Your task to perform on an android device: turn off wifi Image 0: 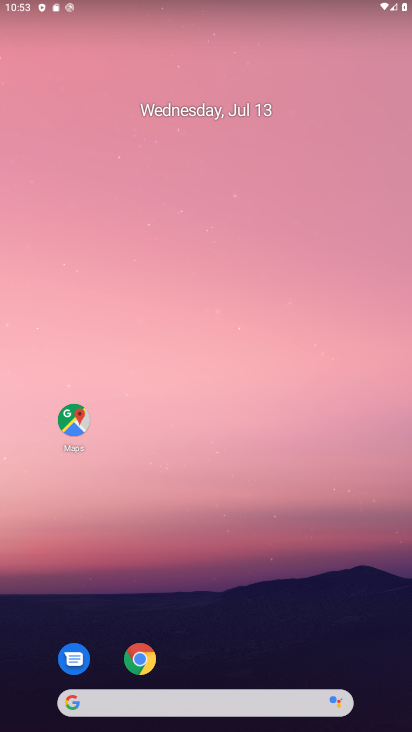
Step 0: drag from (266, 506) to (238, 106)
Your task to perform on an android device: turn off wifi Image 1: 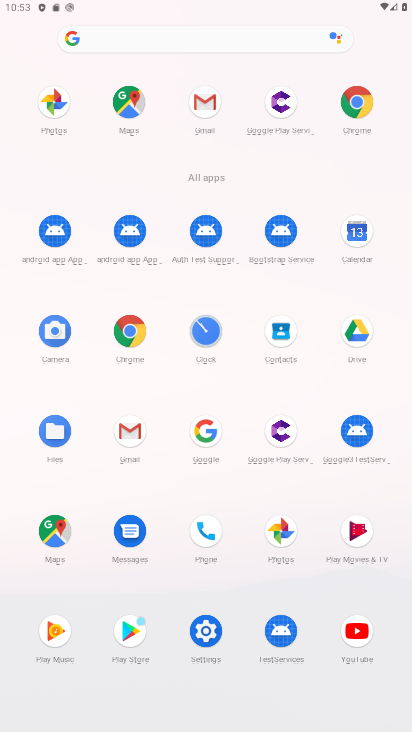
Step 1: click (206, 634)
Your task to perform on an android device: turn off wifi Image 2: 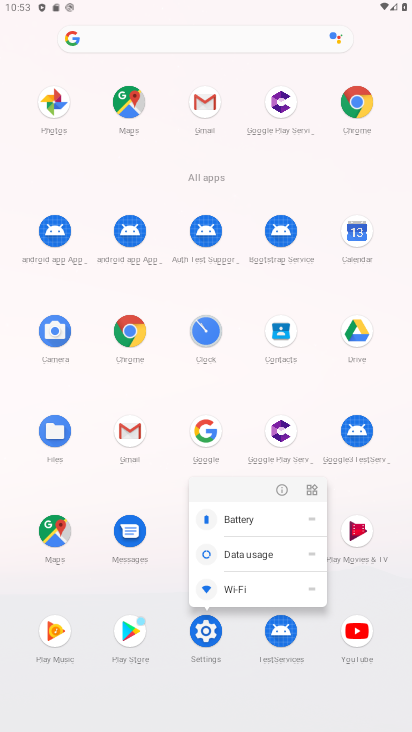
Step 2: click (213, 628)
Your task to perform on an android device: turn off wifi Image 3: 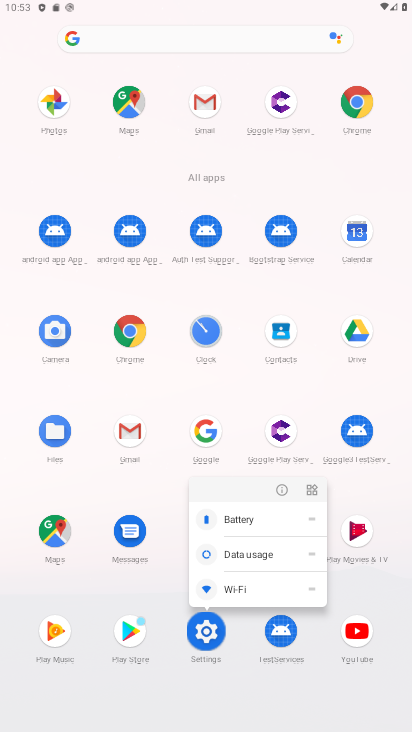
Step 3: click (208, 634)
Your task to perform on an android device: turn off wifi Image 4: 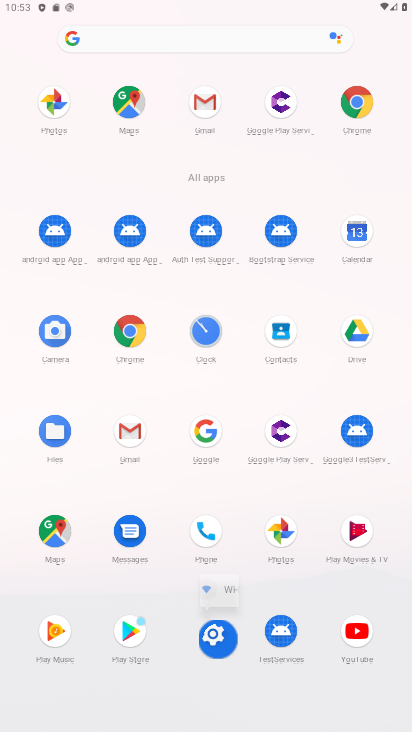
Step 4: click (210, 639)
Your task to perform on an android device: turn off wifi Image 5: 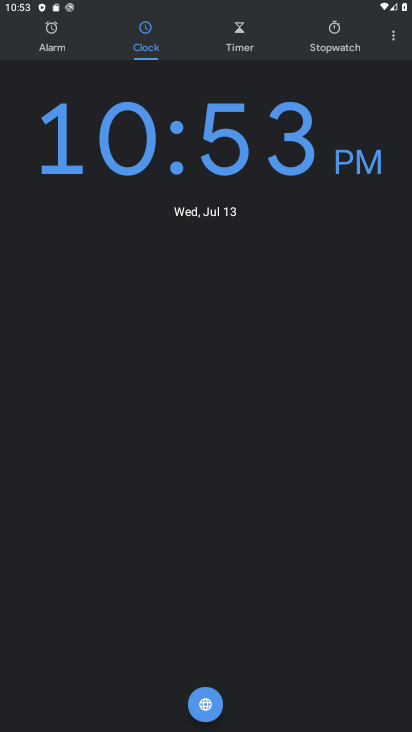
Step 5: click (395, 44)
Your task to perform on an android device: turn off wifi Image 6: 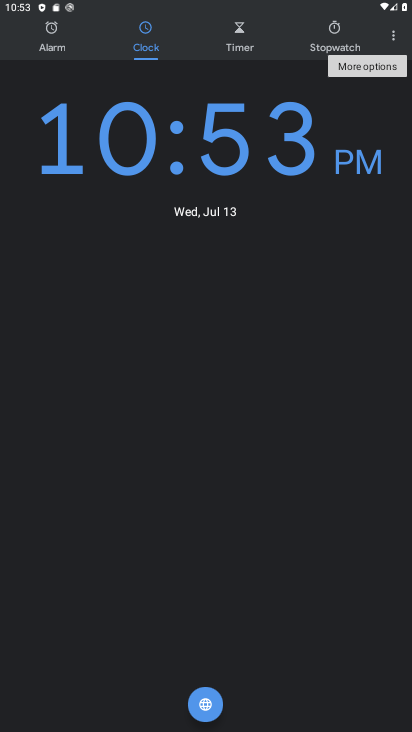
Step 6: click (395, 38)
Your task to perform on an android device: turn off wifi Image 7: 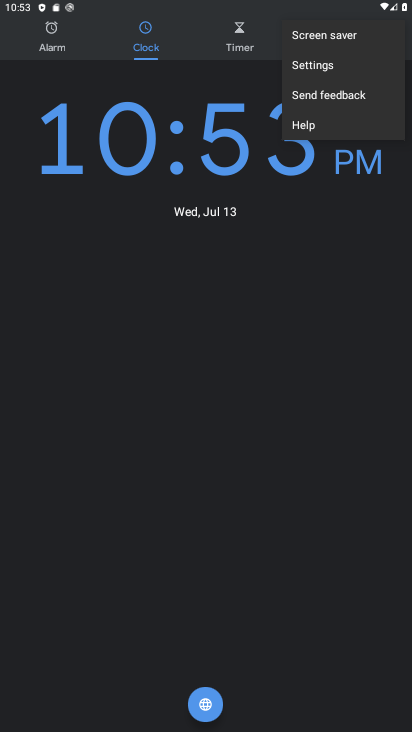
Step 7: click (323, 67)
Your task to perform on an android device: turn off wifi Image 8: 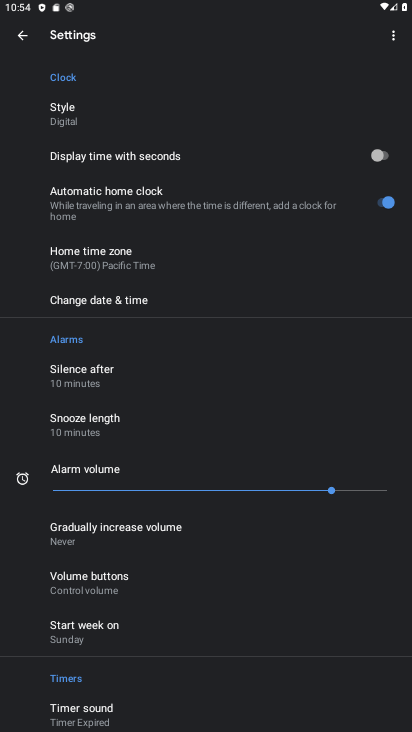
Step 8: drag from (150, 550) to (190, 68)
Your task to perform on an android device: turn off wifi Image 9: 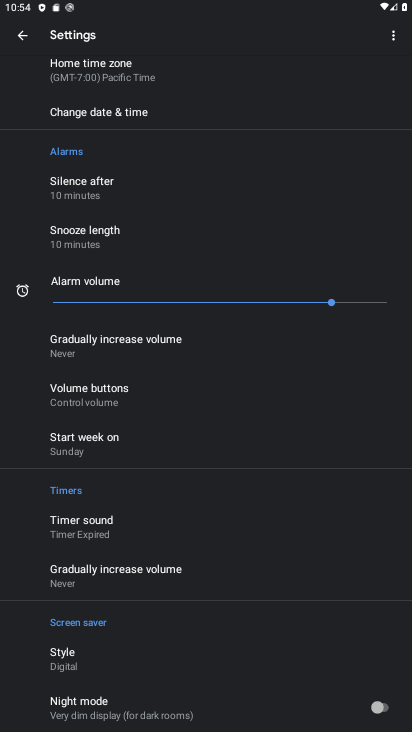
Step 9: drag from (116, 171) to (154, 481)
Your task to perform on an android device: turn off wifi Image 10: 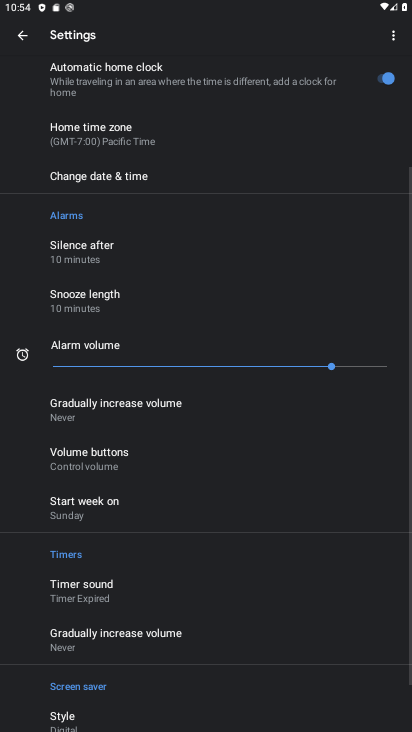
Step 10: drag from (125, 140) to (180, 577)
Your task to perform on an android device: turn off wifi Image 11: 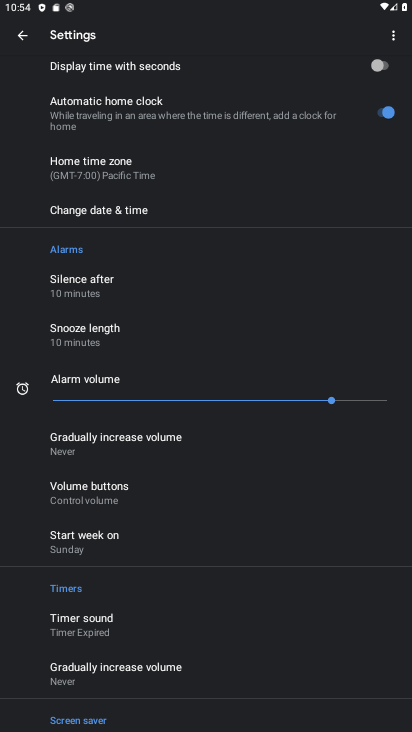
Step 11: click (241, 661)
Your task to perform on an android device: turn off wifi Image 12: 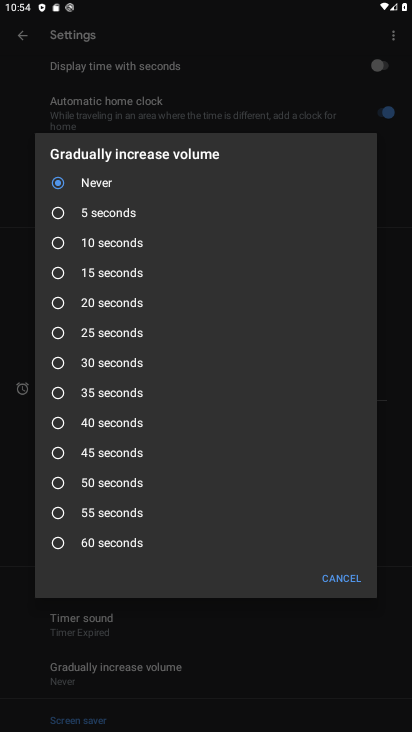
Step 12: click (265, 635)
Your task to perform on an android device: turn off wifi Image 13: 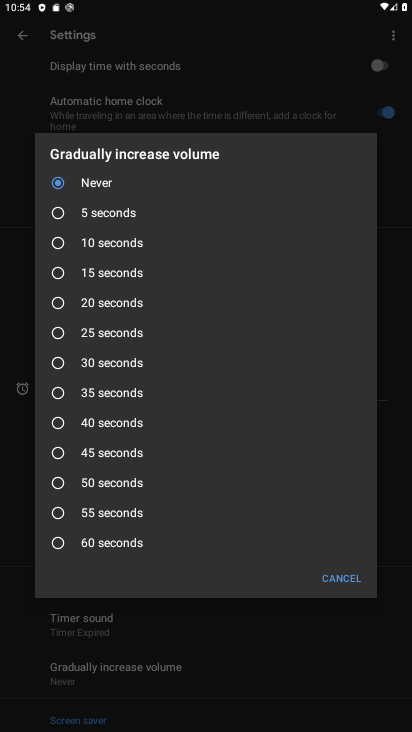
Step 13: click (264, 636)
Your task to perform on an android device: turn off wifi Image 14: 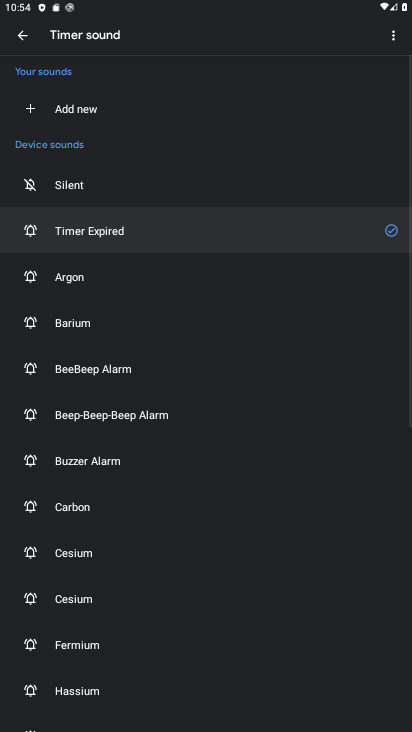
Step 14: click (21, 28)
Your task to perform on an android device: turn off wifi Image 15: 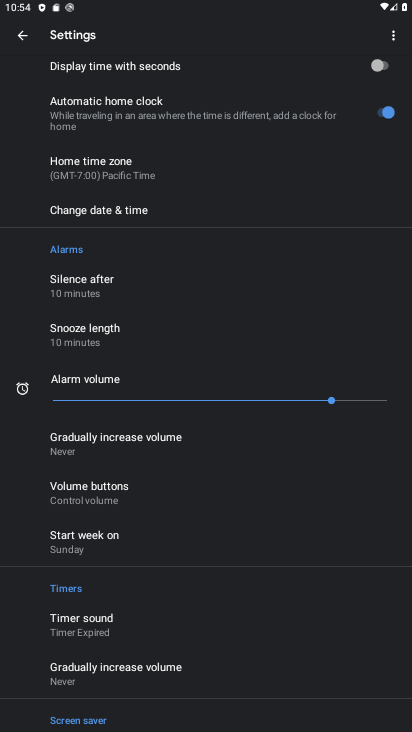
Step 15: click (25, 40)
Your task to perform on an android device: turn off wifi Image 16: 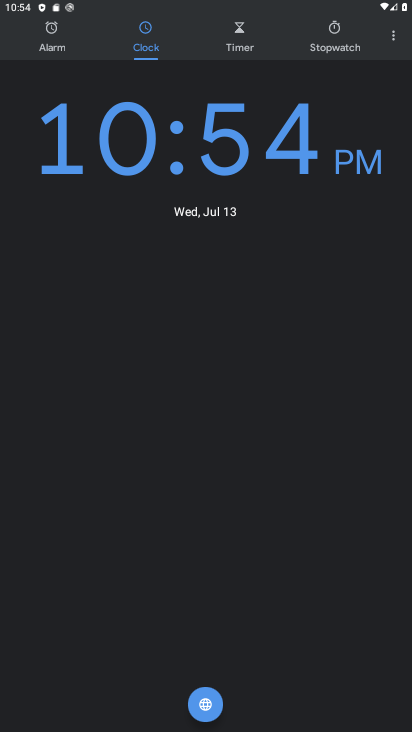
Step 16: press back button
Your task to perform on an android device: turn off wifi Image 17: 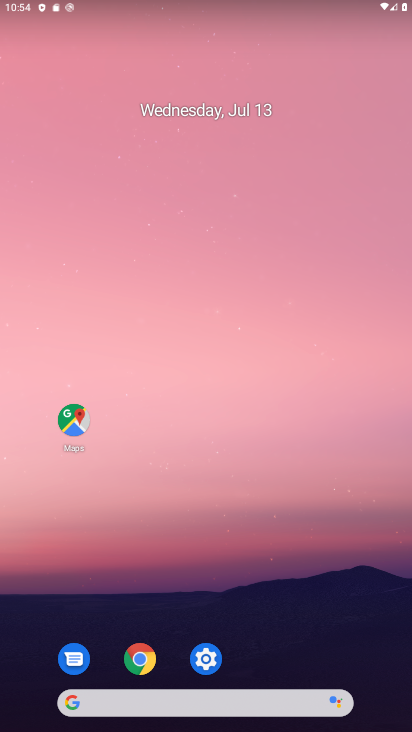
Step 17: drag from (289, 607) to (245, 65)
Your task to perform on an android device: turn off wifi Image 18: 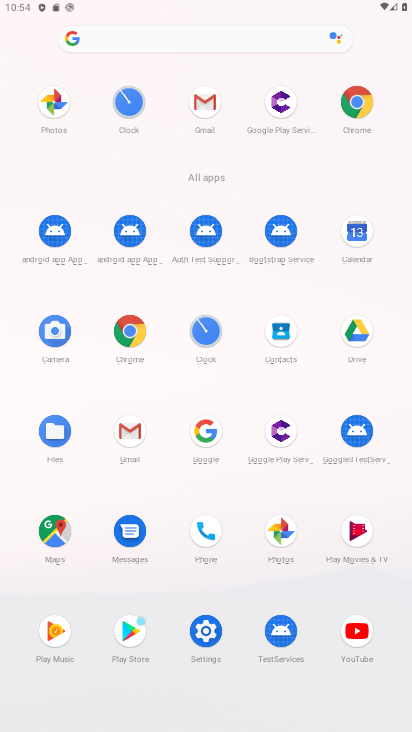
Step 18: click (212, 637)
Your task to perform on an android device: turn off wifi Image 19: 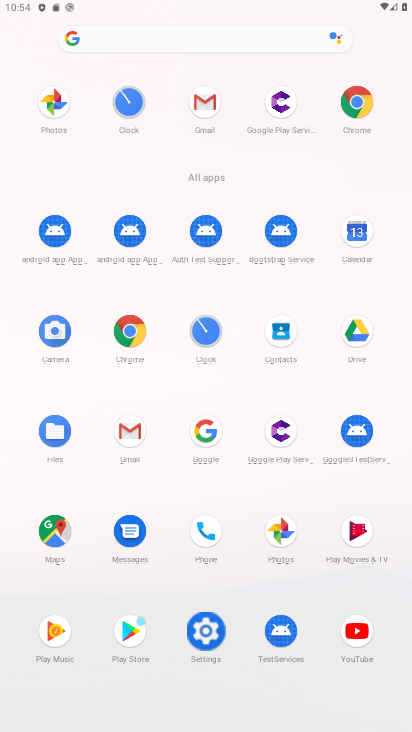
Step 19: click (212, 637)
Your task to perform on an android device: turn off wifi Image 20: 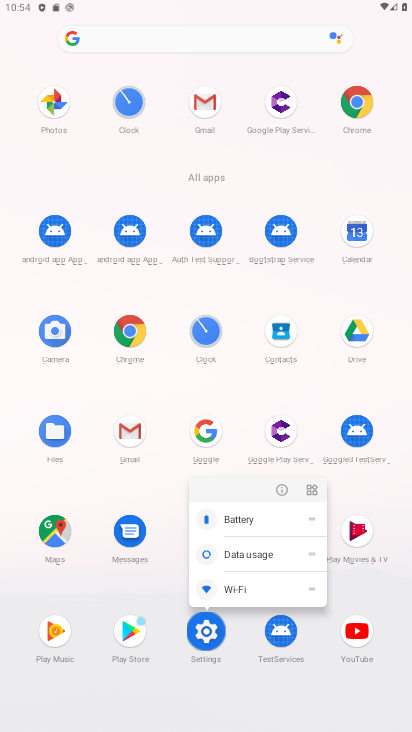
Step 20: click (212, 637)
Your task to perform on an android device: turn off wifi Image 21: 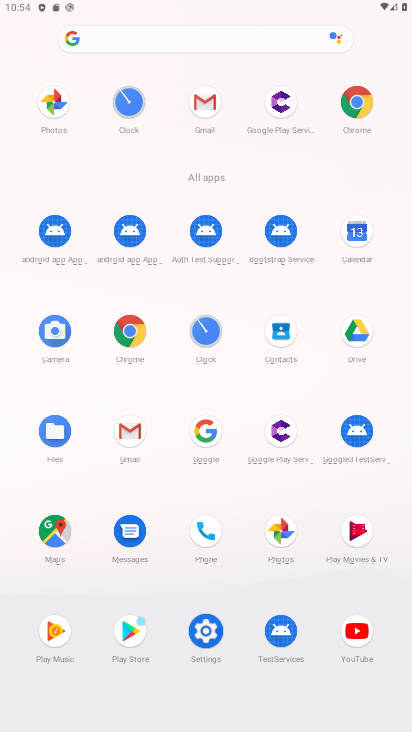
Step 21: click (212, 637)
Your task to perform on an android device: turn off wifi Image 22: 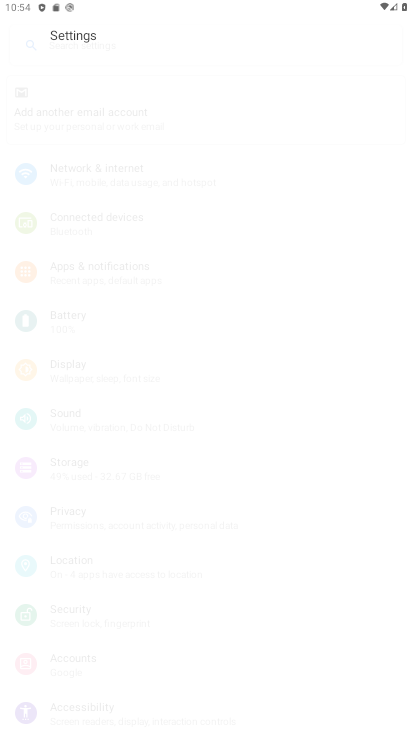
Step 22: click (212, 642)
Your task to perform on an android device: turn off wifi Image 23: 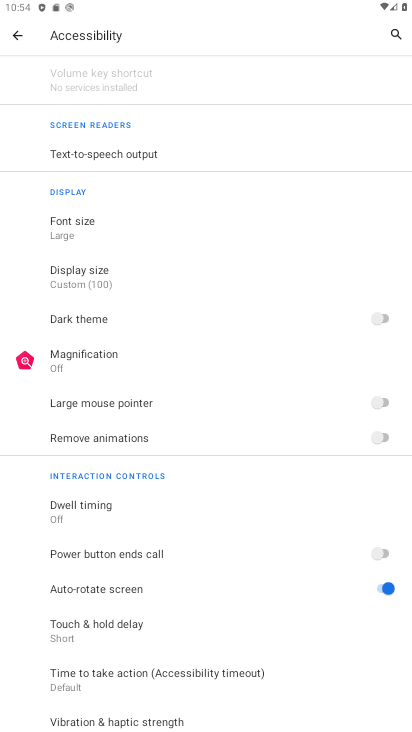
Step 23: click (17, 31)
Your task to perform on an android device: turn off wifi Image 24: 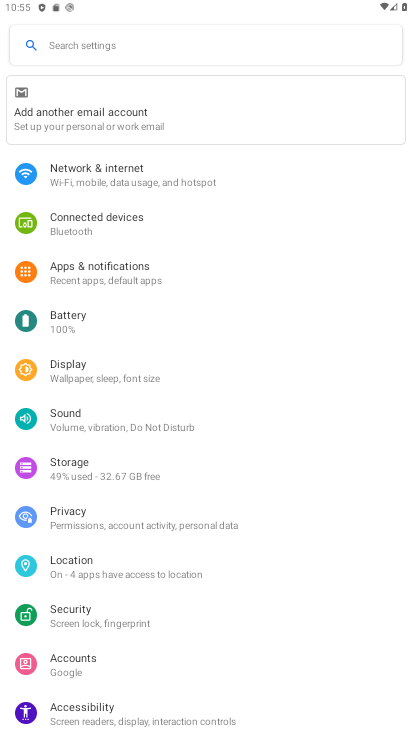
Step 24: click (120, 172)
Your task to perform on an android device: turn off wifi Image 25: 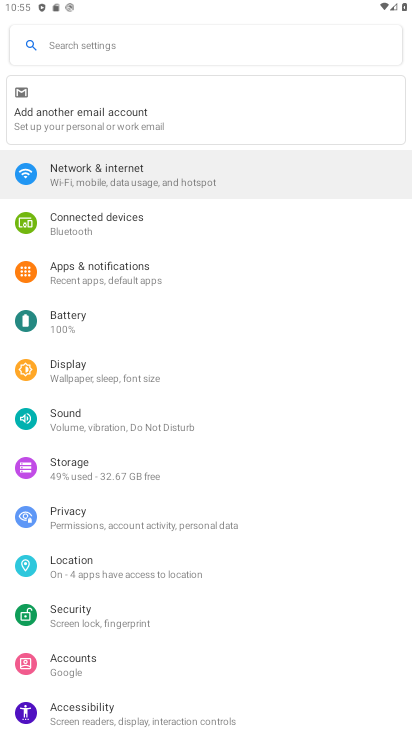
Step 25: click (120, 172)
Your task to perform on an android device: turn off wifi Image 26: 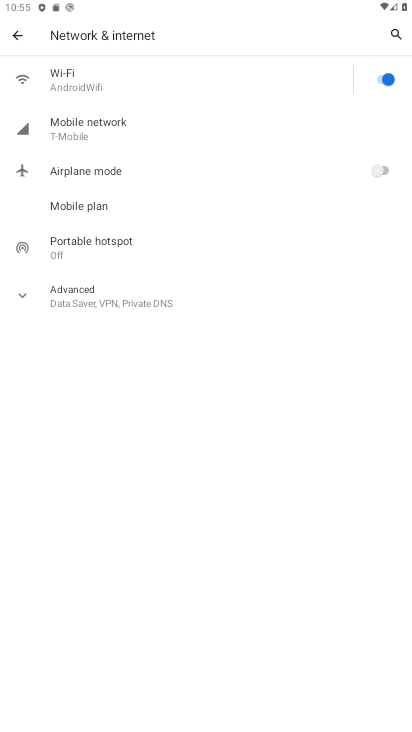
Step 26: click (386, 82)
Your task to perform on an android device: turn off wifi Image 27: 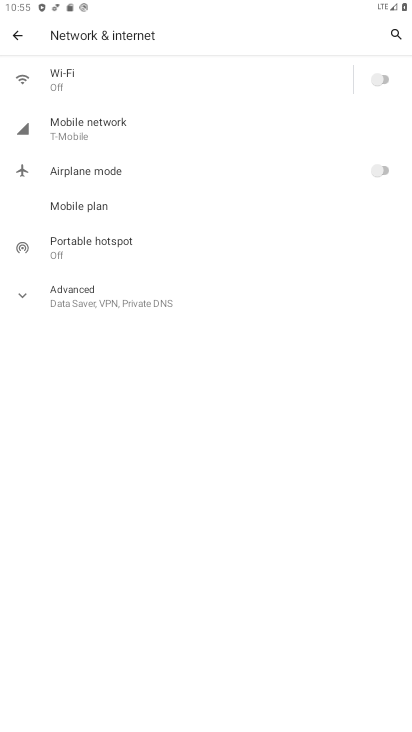
Step 27: task complete